Your task to perform on an android device: What's the weather going to be this weekend? Image 0: 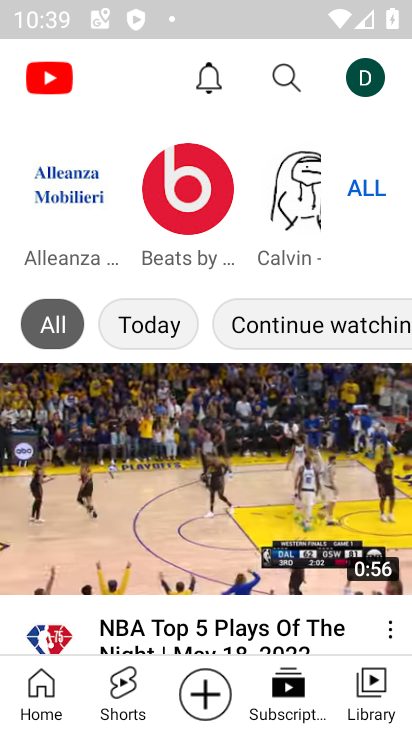
Step 0: press home button
Your task to perform on an android device: What's the weather going to be this weekend? Image 1: 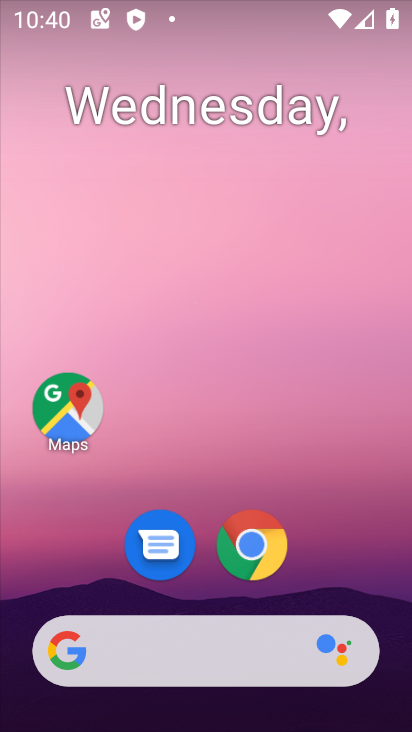
Step 1: drag from (192, 591) to (209, 191)
Your task to perform on an android device: What's the weather going to be this weekend? Image 2: 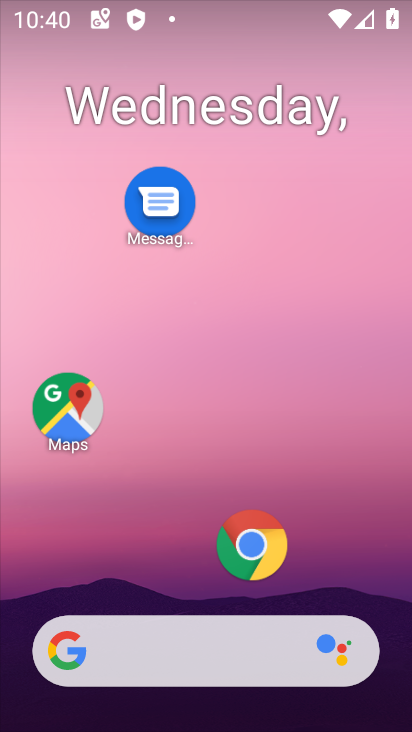
Step 2: drag from (183, 583) to (208, 215)
Your task to perform on an android device: What's the weather going to be this weekend? Image 3: 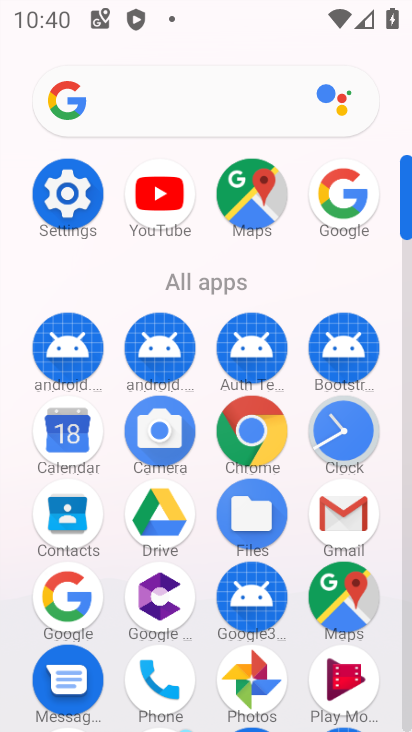
Step 3: click (79, 578)
Your task to perform on an android device: What's the weather going to be this weekend? Image 4: 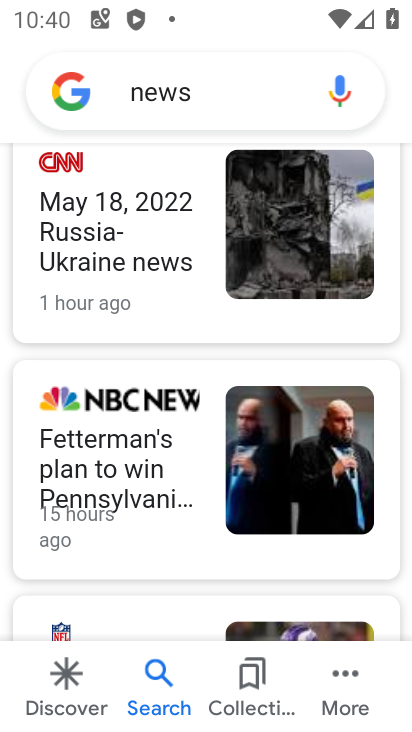
Step 4: drag from (211, 238) to (261, 552)
Your task to perform on an android device: What's the weather going to be this weekend? Image 5: 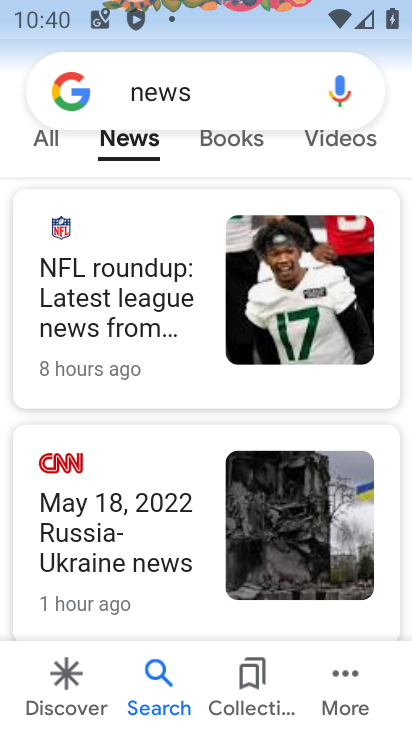
Step 5: click (248, 96)
Your task to perform on an android device: What's the weather going to be this weekend? Image 6: 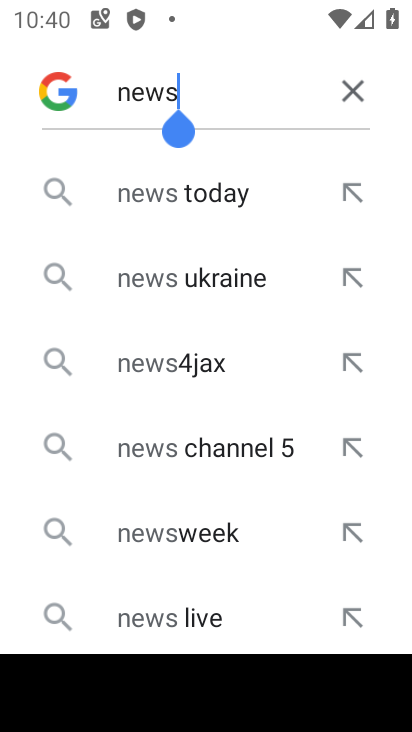
Step 6: click (354, 84)
Your task to perform on an android device: What's the weather going to be this weekend? Image 7: 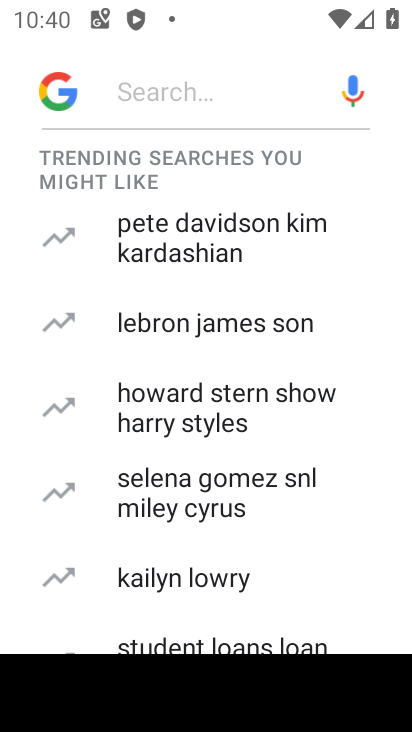
Step 7: type "weather"
Your task to perform on an android device: What's the weather going to be this weekend? Image 8: 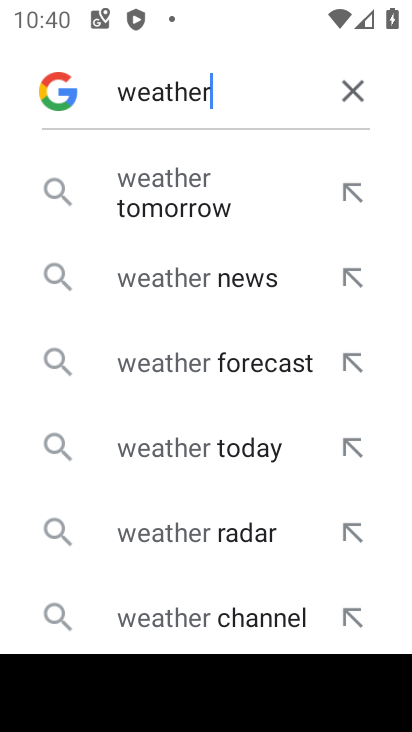
Step 8: drag from (266, 529) to (268, 400)
Your task to perform on an android device: What's the weather going to be this weekend? Image 9: 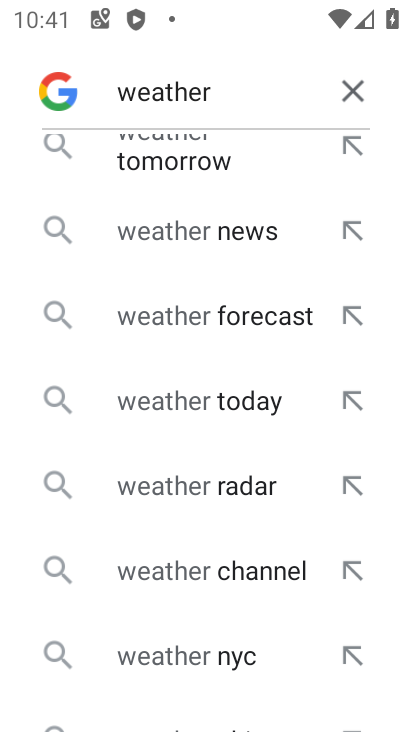
Step 9: drag from (216, 268) to (216, 537)
Your task to perform on an android device: What's the weather going to be this weekend? Image 10: 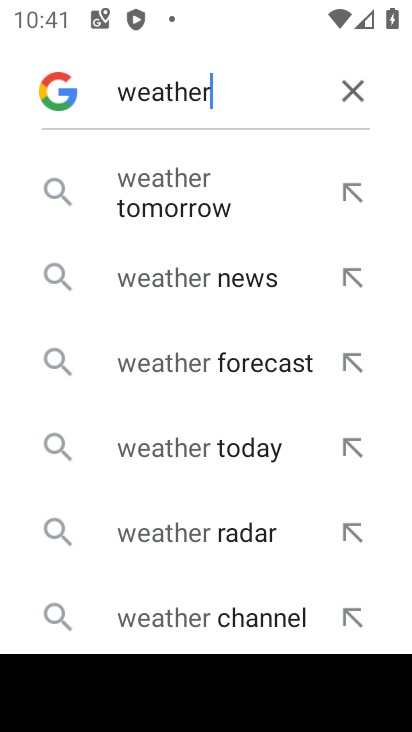
Step 10: click (207, 425)
Your task to perform on an android device: What's the weather going to be this weekend? Image 11: 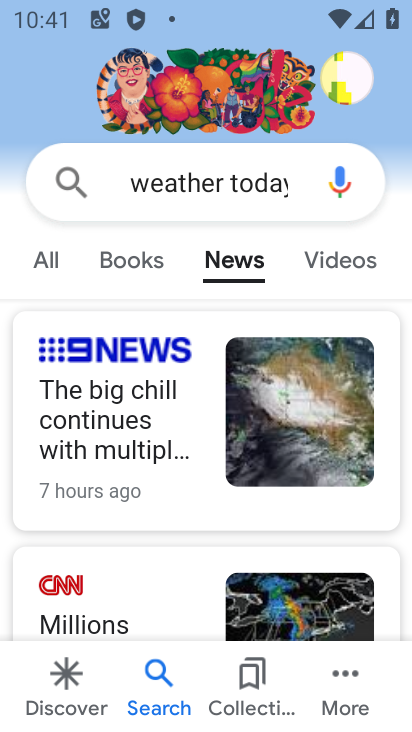
Step 11: click (35, 258)
Your task to perform on an android device: What's the weather going to be this weekend? Image 12: 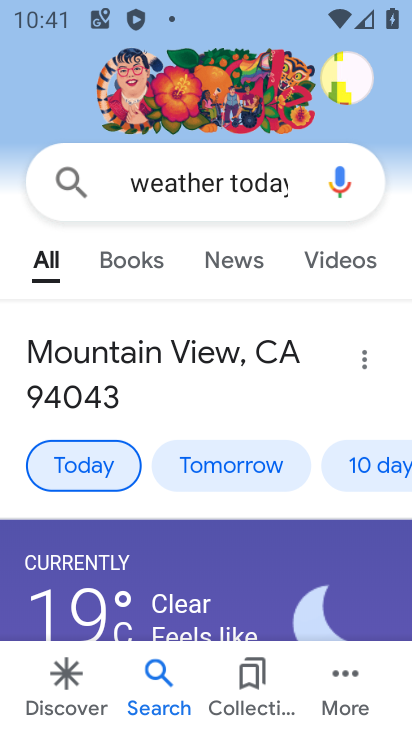
Step 12: click (381, 465)
Your task to perform on an android device: What's the weather going to be this weekend? Image 13: 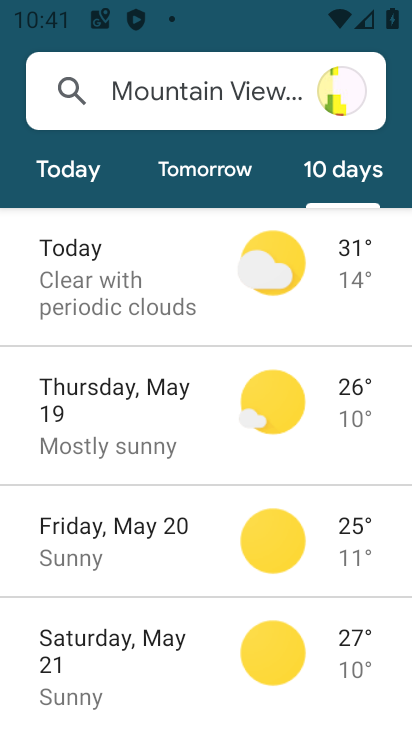
Step 13: task complete